Your task to perform on an android device: set the timer Image 0: 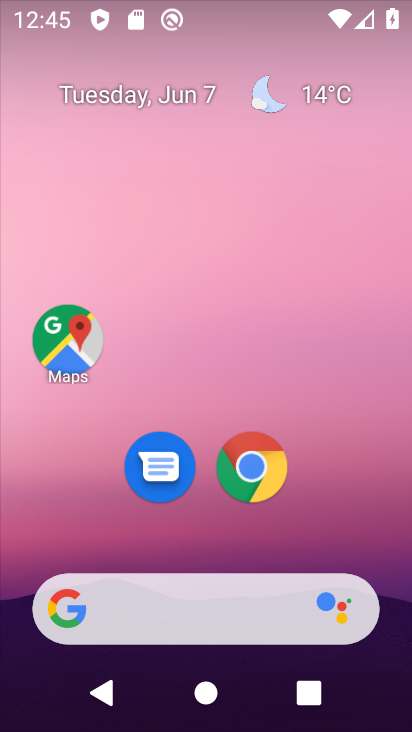
Step 0: drag from (196, 581) to (225, 24)
Your task to perform on an android device: set the timer Image 1: 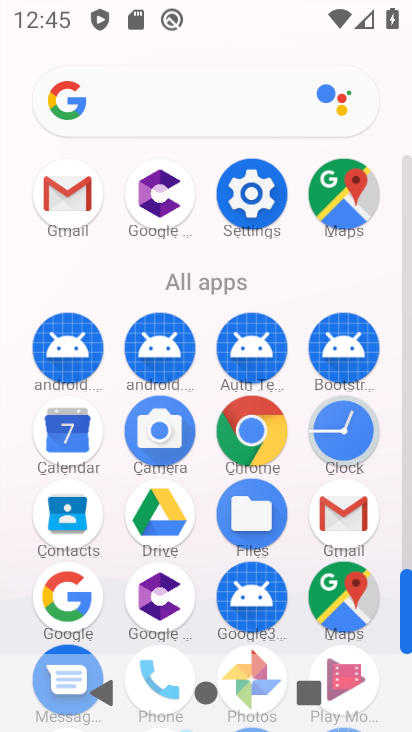
Step 1: click (343, 442)
Your task to perform on an android device: set the timer Image 2: 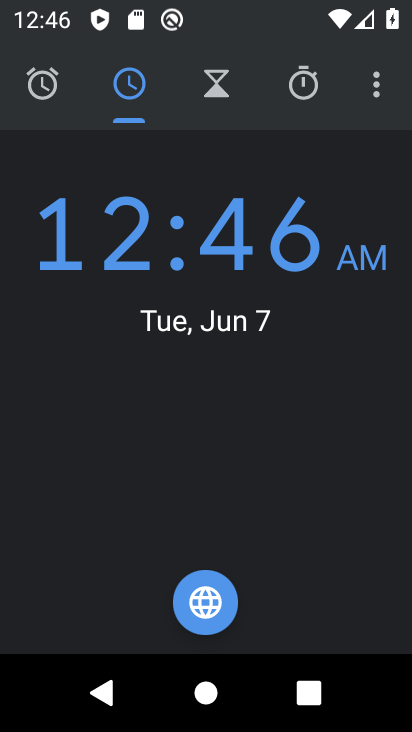
Step 2: click (213, 91)
Your task to perform on an android device: set the timer Image 3: 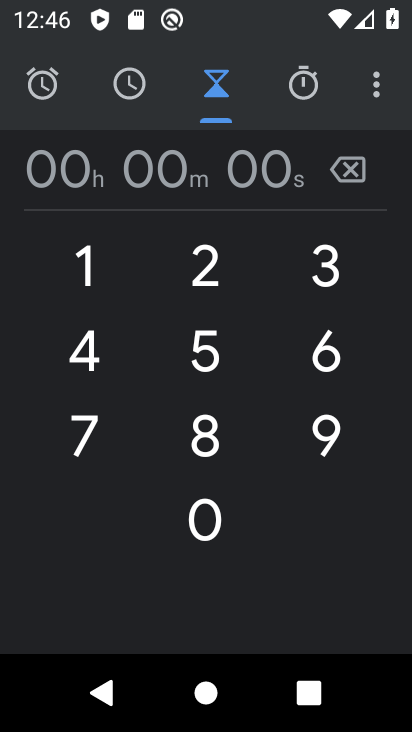
Step 3: click (187, 283)
Your task to perform on an android device: set the timer Image 4: 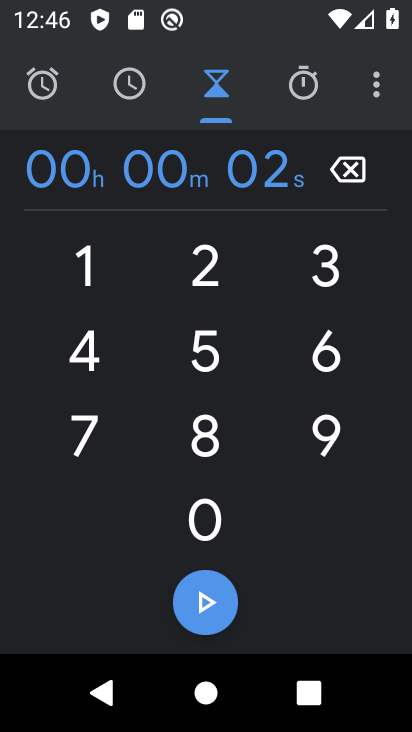
Step 4: click (305, 361)
Your task to perform on an android device: set the timer Image 5: 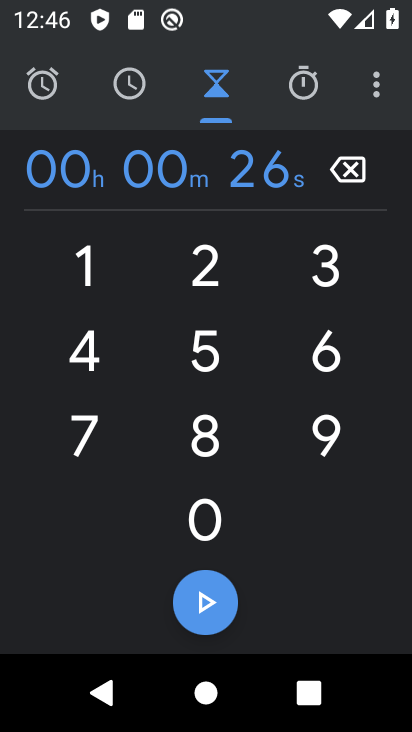
Step 5: click (337, 396)
Your task to perform on an android device: set the timer Image 6: 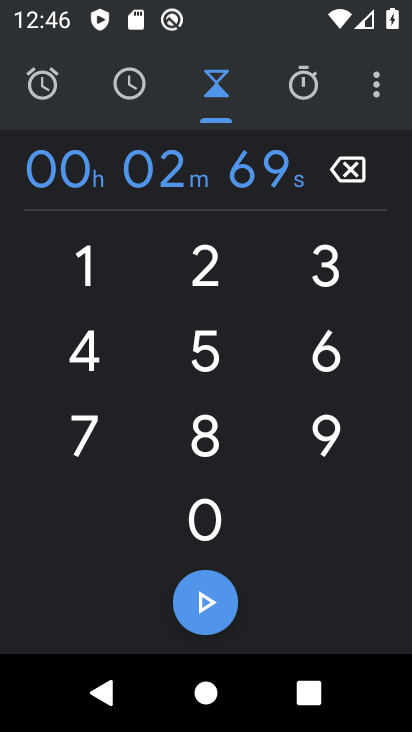
Step 6: click (82, 363)
Your task to perform on an android device: set the timer Image 7: 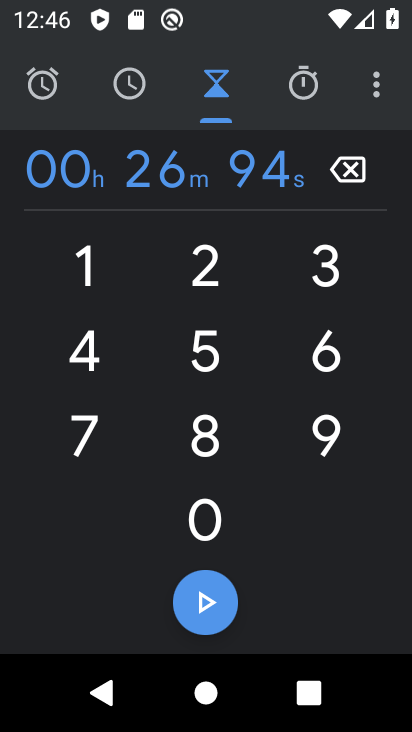
Step 7: click (214, 601)
Your task to perform on an android device: set the timer Image 8: 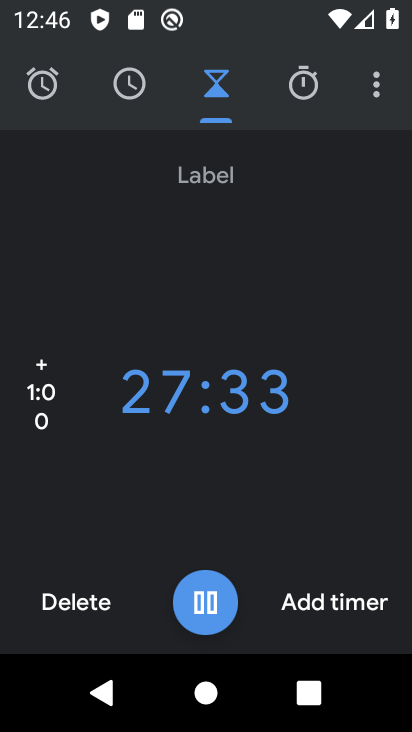
Step 8: task complete